Your task to perform on an android device: Go to Reddit.com Image 0: 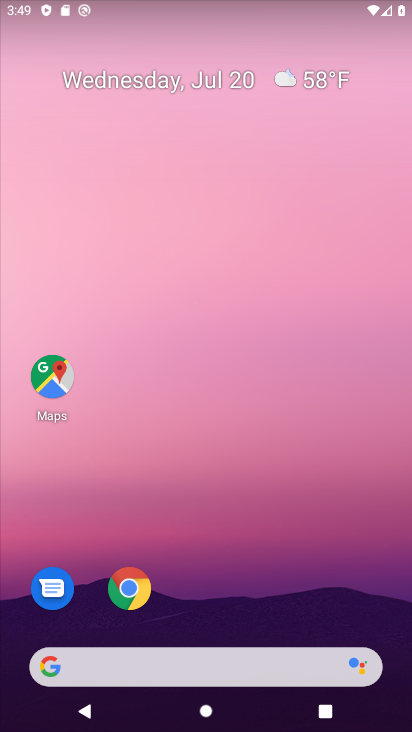
Step 0: drag from (229, 625) to (247, 165)
Your task to perform on an android device: Go to Reddit.com Image 1: 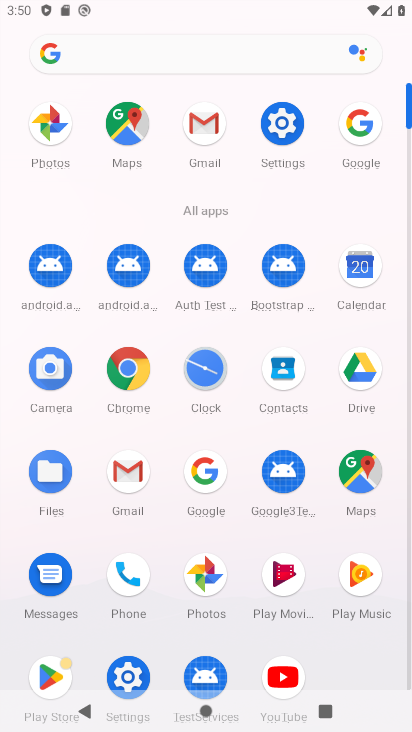
Step 1: click (194, 471)
Your task to perform on an android device: Go to Reddit.com Image 2: 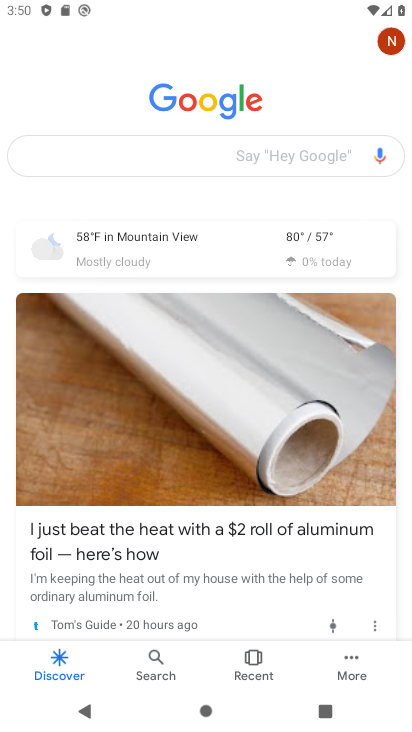
Step 2: click (199, 153)
Your task to perform on an android device: Go to Reddit.com Image 3: 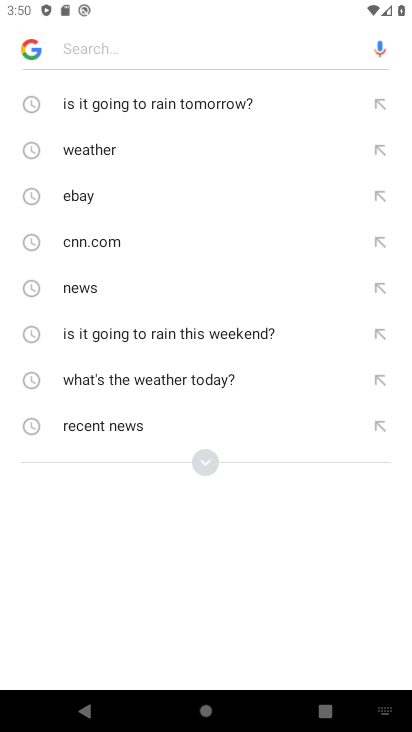
Step 3: click (200, 465)
Your task to perform on an android device: Go to Reddit.com Image 4: 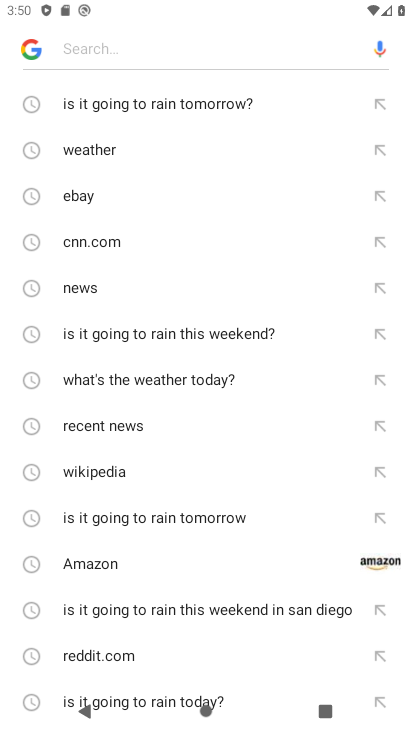
Step 4: click (94, 651)
Your task to perform on an android device: Go to Reddit.com Image 5: 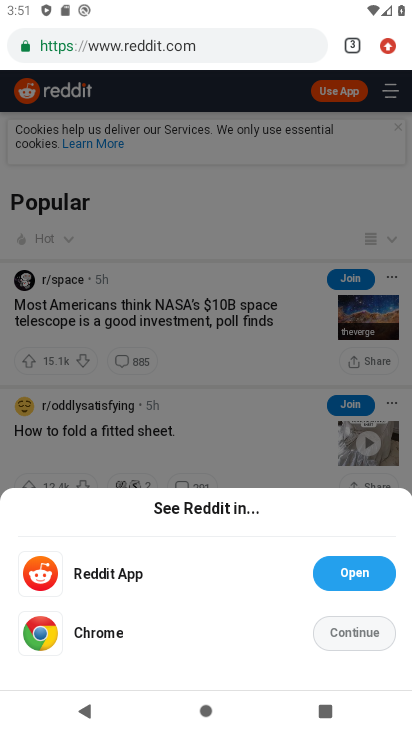
Step 5: task complete